Your task to perform on an android device: change text size in settings app Image 0: 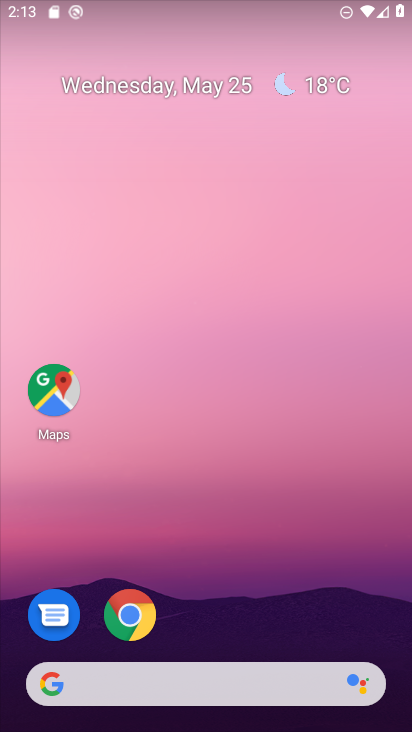
Step 0: drag from (293, 558) to (306, 41)
Your task to perform on an android device: change text size in settings app Image 1: 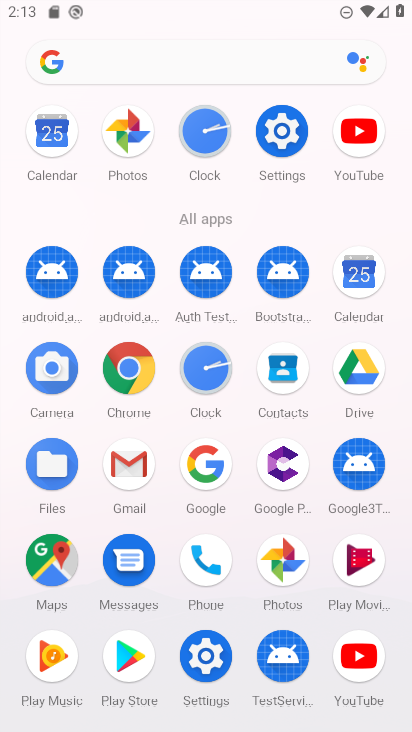
Step 1: click (295, 133)
Your task to perform on an android device: change text size in settings app Image 2: 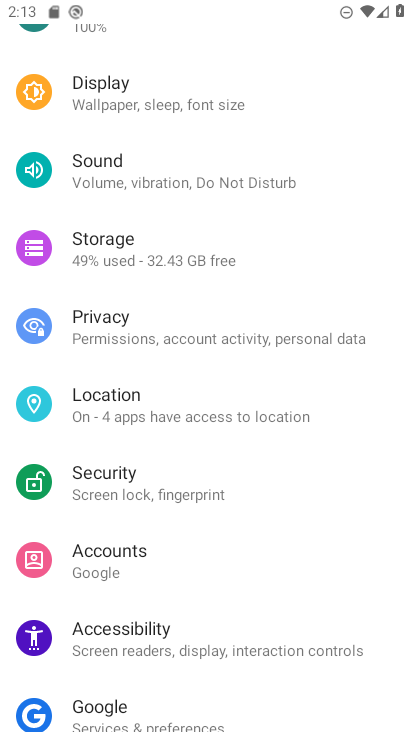
Step 2: click (210, 100)
Your task to perform on an android device: change text size in settings app Image 3: 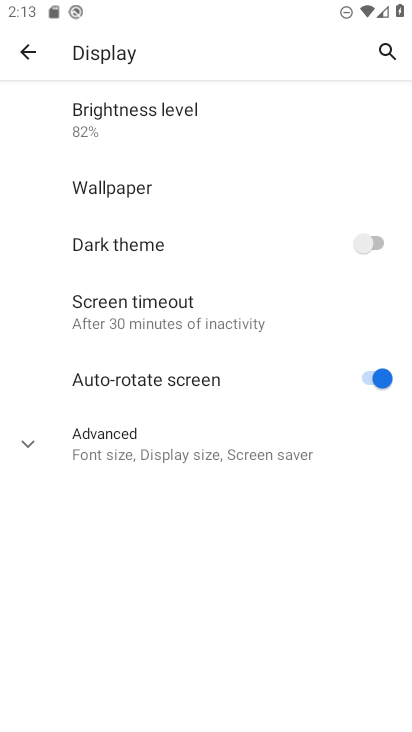
Step 3: click (32, 447)
Your task to perform on an android device: change text size in settings app Image 4: 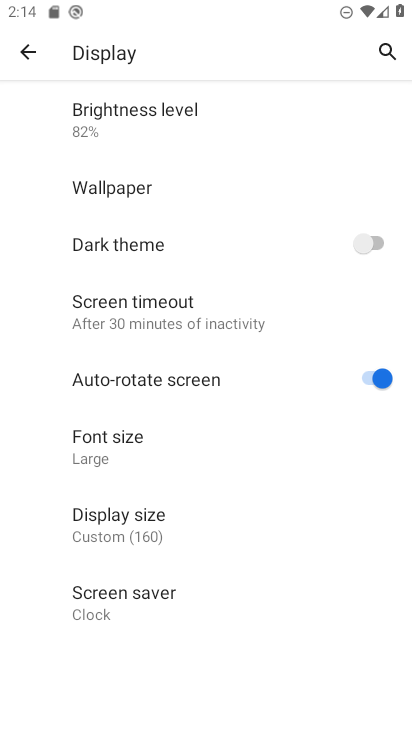
Step 4: click (152, 448)
Your task to perform on an android device: change text size in settings app Image 5: 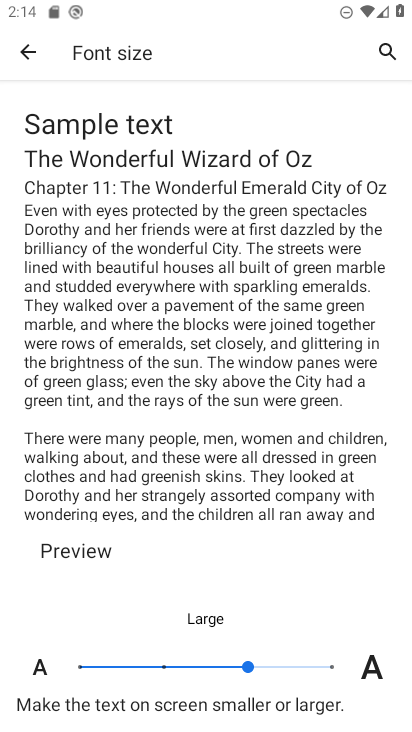
Step 5: click (323, 662)
Your task to perform on an android device: change text size in settings app Image 6: 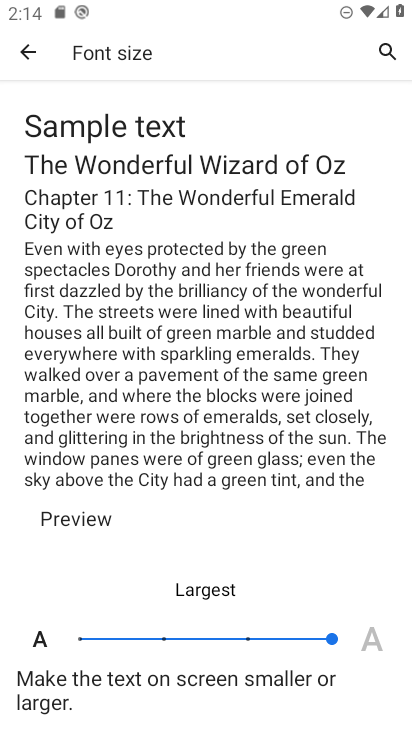
Step 6: click (24, 46)
Your task to perform on an android device: change text size in settings app Image 7: 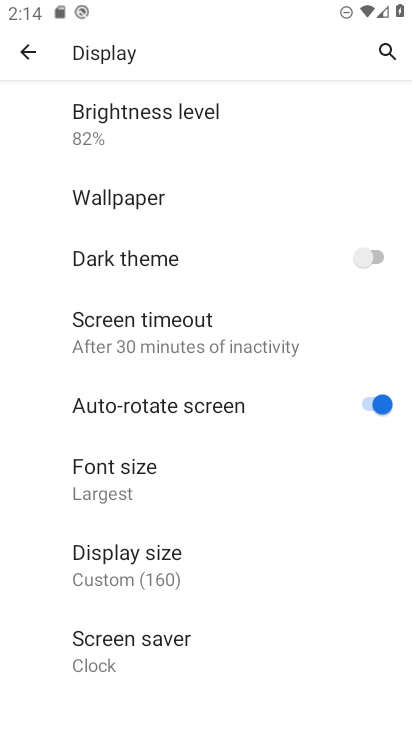
Step 7: task complete